Your task to perform on an android device: Open the phone app and click the voicemail tab. Image 0: 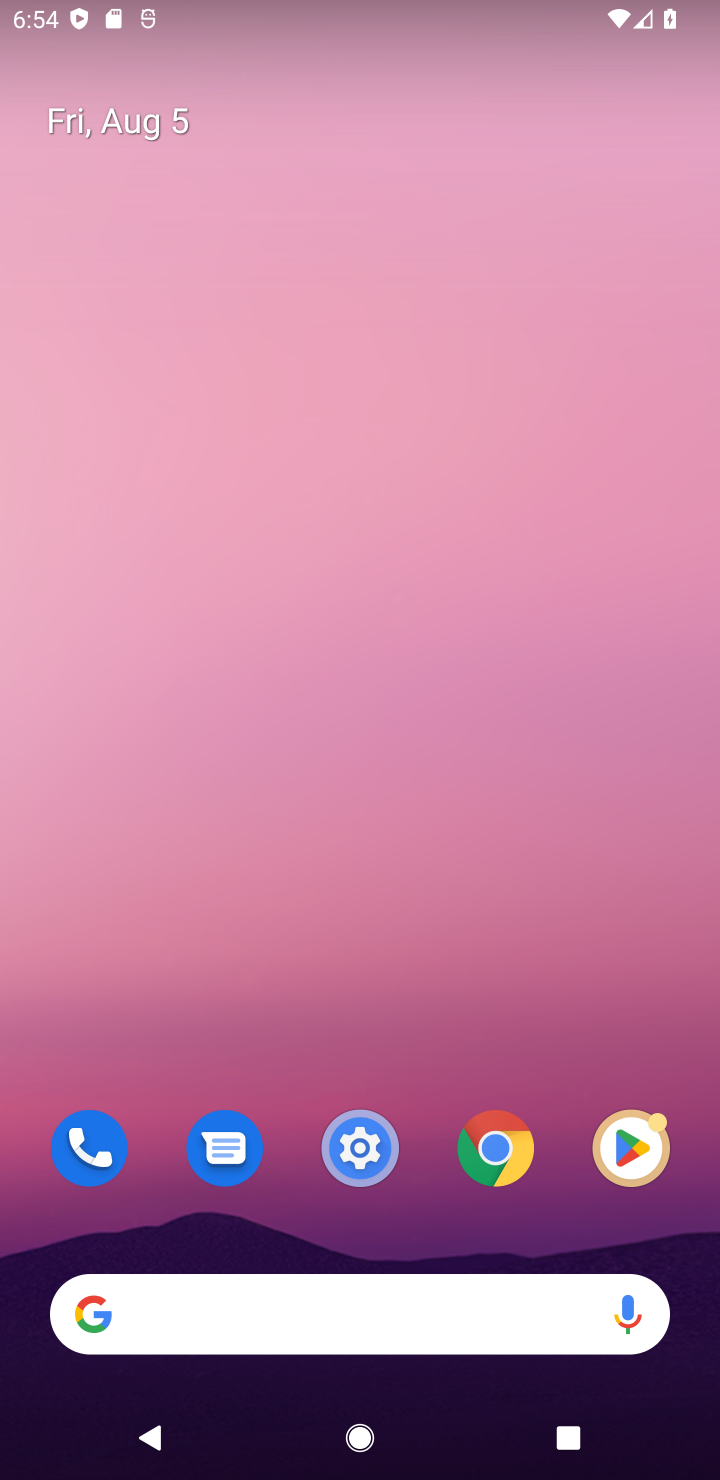
Step 0: drag from (376, 579) to (418, 43)
Your task to perform on an android device: Open the phone app and click the voicemail tab. Image 1: 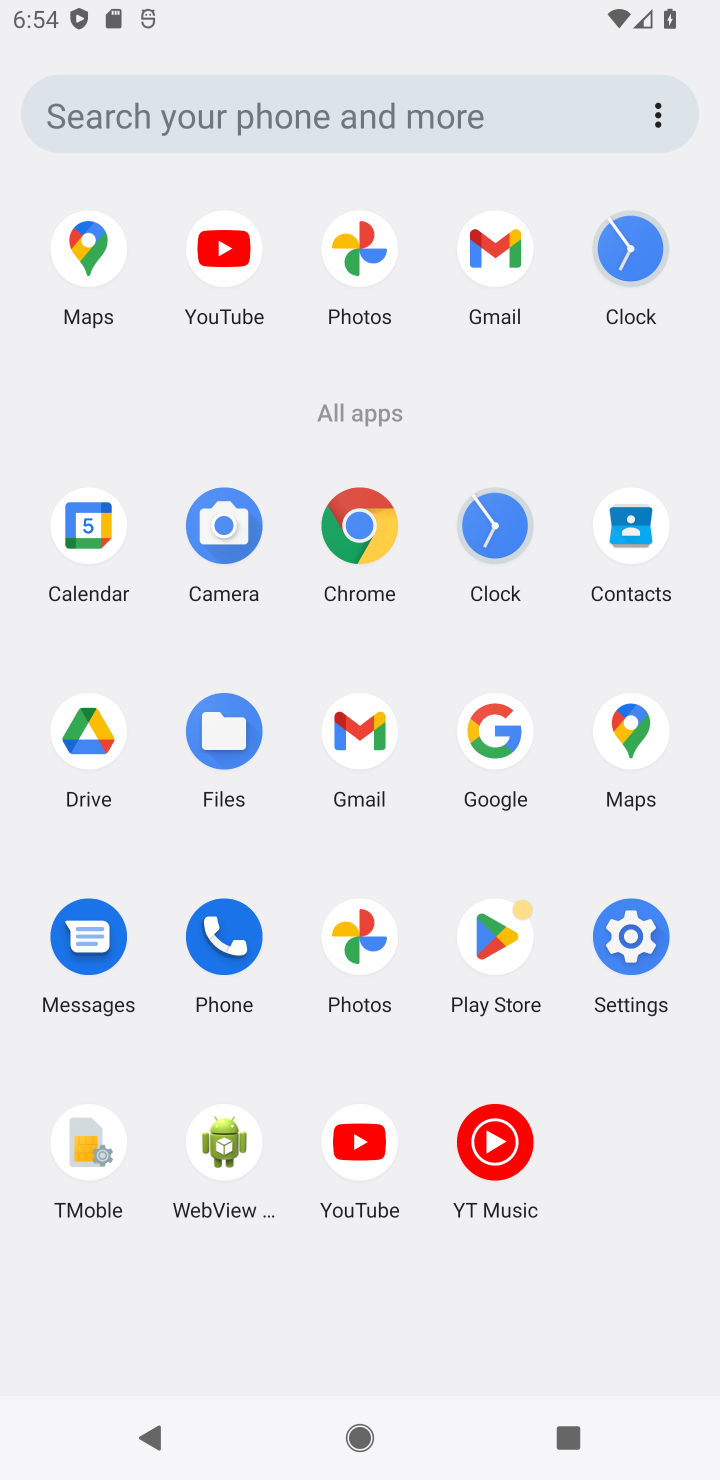
Step 1: click (216, 946)
Your task to perform on an android device: Open the phone app and click the voicemail tab. Image 2: 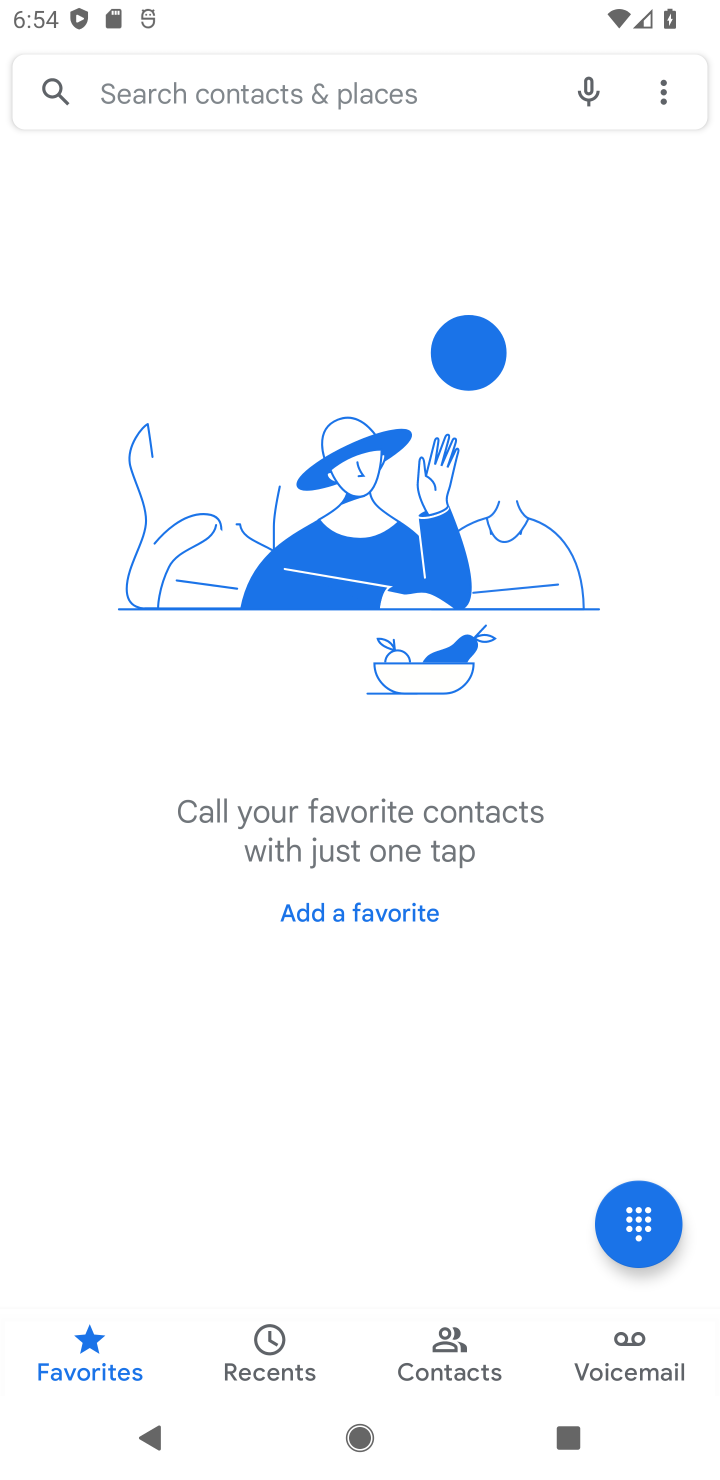
Step 2: click (644, 1364)
Your task to perform on an android device: Open the phone app and click the voicemail tab. Image 3: 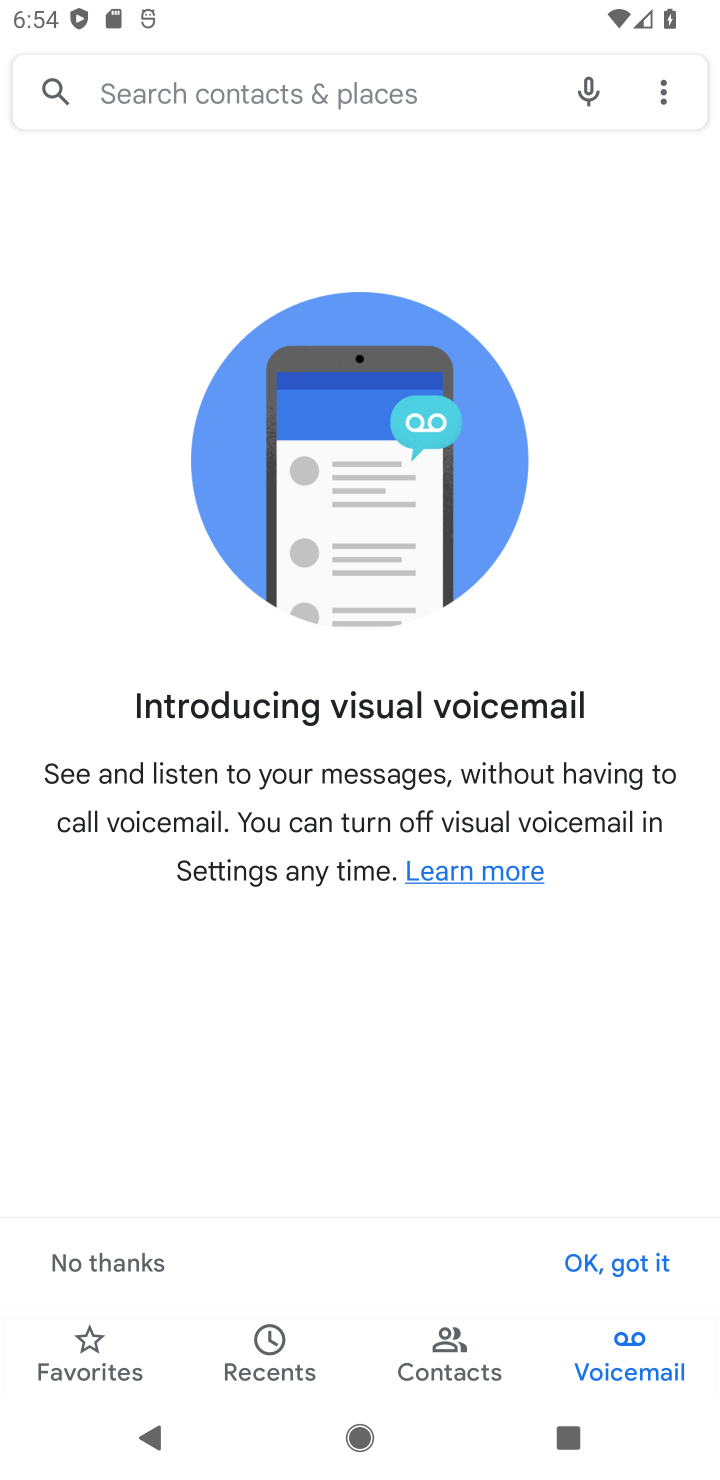
Step 3: task complete